Your task to perform on an android device: Clear the shopping cart on walmart.com. Image 0: 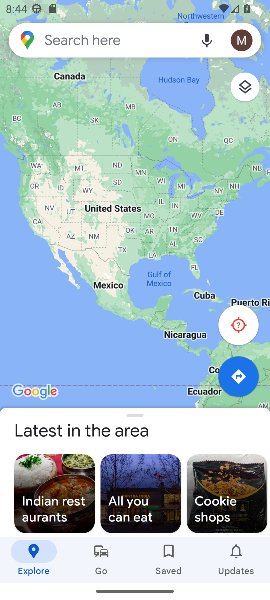
Step 0: press home button
Your task to perform on an android device: Clear the shopping cart on walmart.com. Image 1: 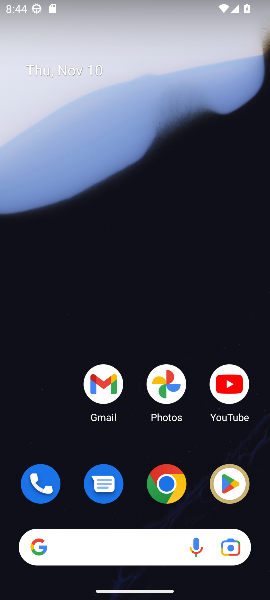
Step 1: click (169, 486)
Your task to perform on an android device: Clear the shopping cart on walmart.com. Image 2: 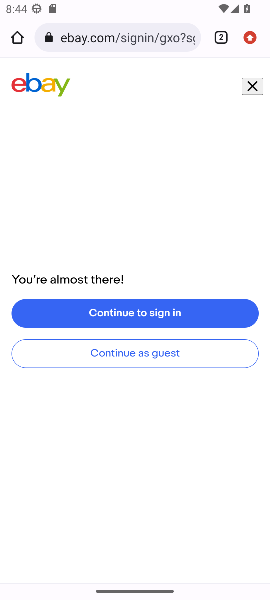
Step 2: click (115, 34)
Your task to perform on an android device: Clear the shopping cart on walmart.com. Image 3: 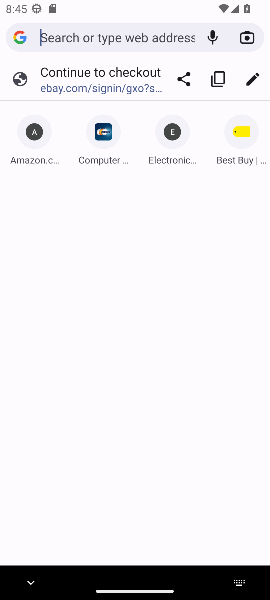
Step 3: type "walmart.com"
Your task to perform on an android device: Clear the shopping cart on walmart.com. Image 4: 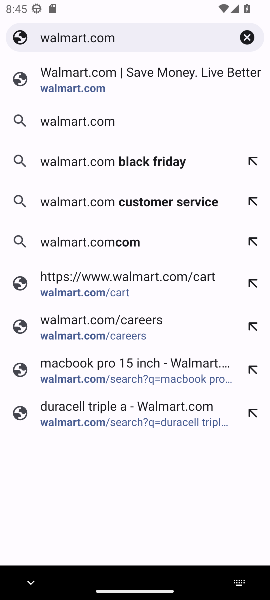
Step 4: click (77, 81)
Your task to perform on an android device: Clear the shopping cart on walmart.com. Image 5: 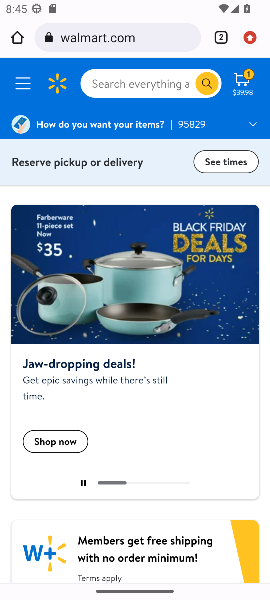
Step 5: click (244, 85)
Your task to perform on an android device: Clear the shopping cart on walmart.com. Image 6: 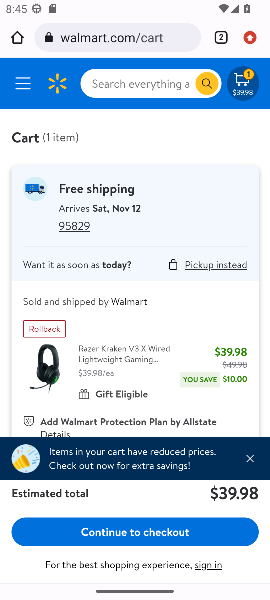
Step 6: drag from (88, 279) to (97, 223)
Your task to perform on an android device: Clear the shopping cart on walmart.com. Image 7: 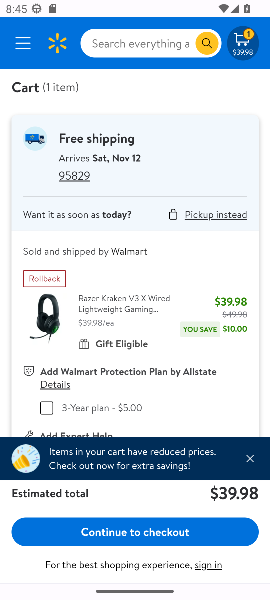
Step 7: click (252, 460)
Your task to perform on an android device: Clear the shopping cart on walmart.com. Image 8: 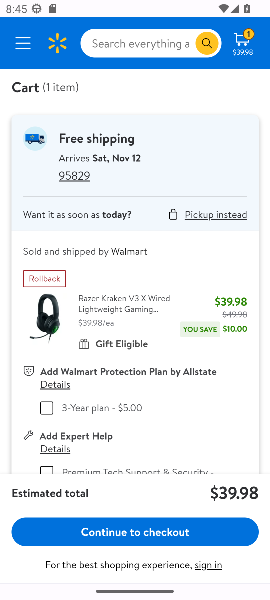
Step 8: drag from (46, 428) to (61, 272)
Your task to perform on an android device: Clear the shopping cart on walmart.com. Image 9: 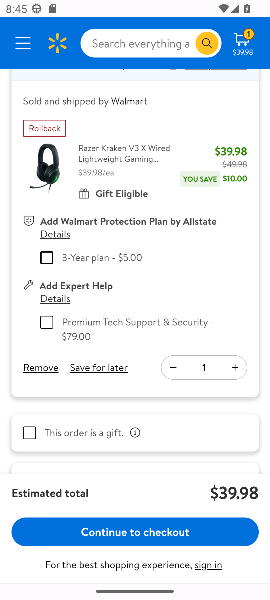
Step 9: click (42, 371)
Your task to perform on an android device: Clear the shopping cart on walmart.com. Image 10: 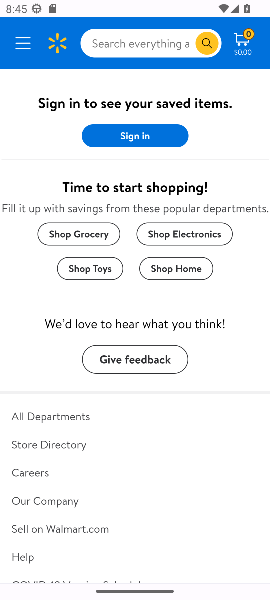
Step 10: task complete